Your task to perform on an android device: visit the assistant section in the google photos Image 0: 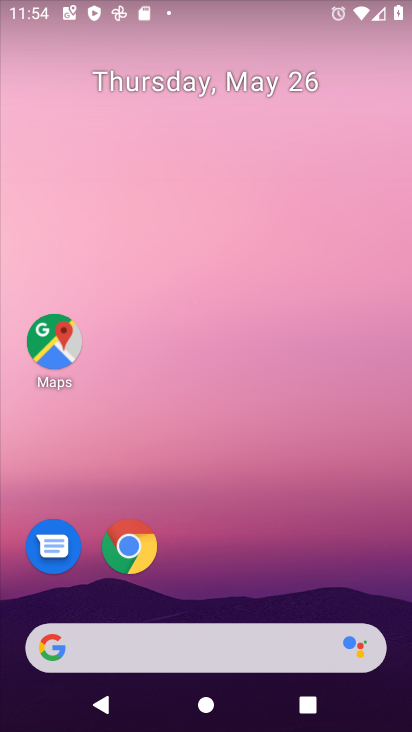
Step 0: drag from (219, 561) to (226, 138)
Your task to perform on an android device: visit the assistant section in the google photos Image 1: 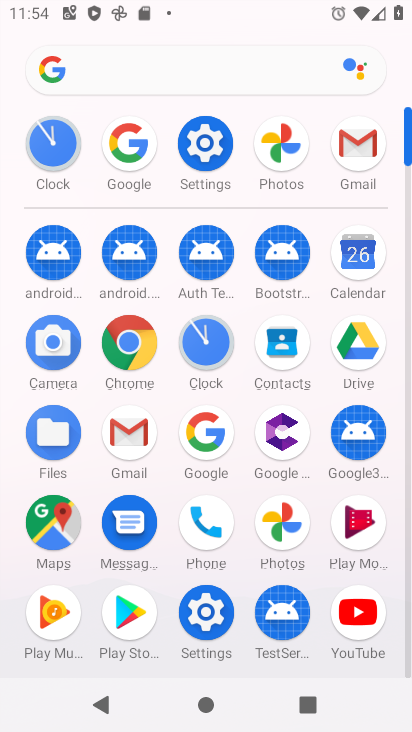
Step 1: click (275, 520)
Your task to perform on an android device: visit the assistant section in the google photos Image 2: 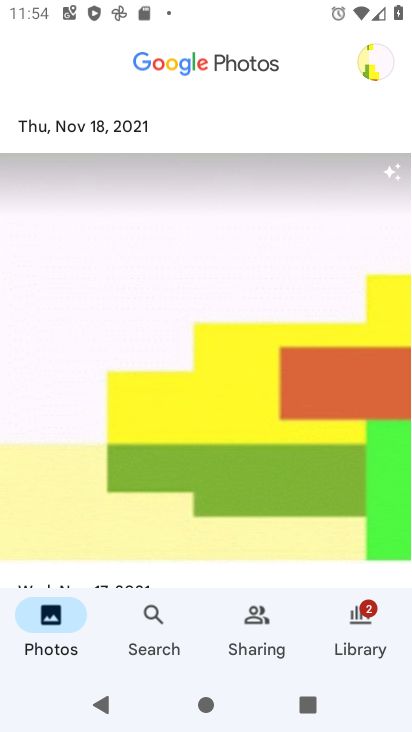
Step 2: click (363, 630)
Your task to perform on an android device: visit the assistant section in the google photos Image 3: 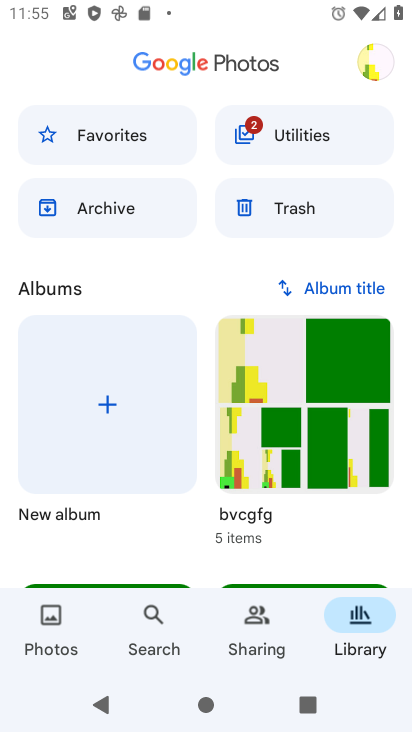
Step 3: task complete